Your task to perform on an android device: Go to privacy settings Image 0: 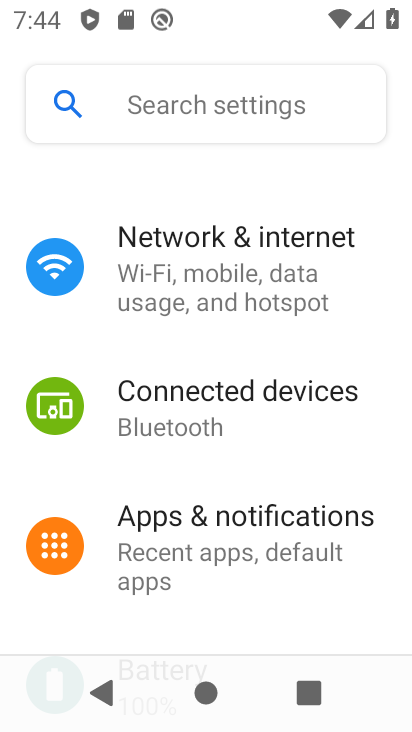
Step 0: press home button
Your task to perform on an android device: Go to privacy settings Image 1: 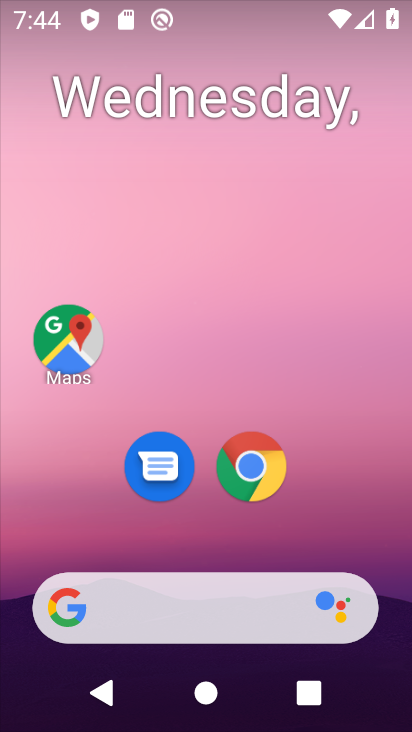
Step 1: drag from (214, 542) to (209, 2)
Your task to perform on an android device: Go to privacy settings Image 2: 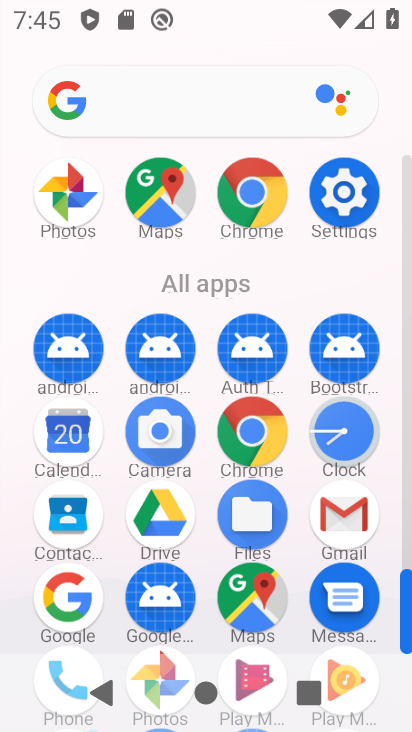
Step 2: click (347, 199)
Your task to perform on an android device: Go to privacy settings Image 3: 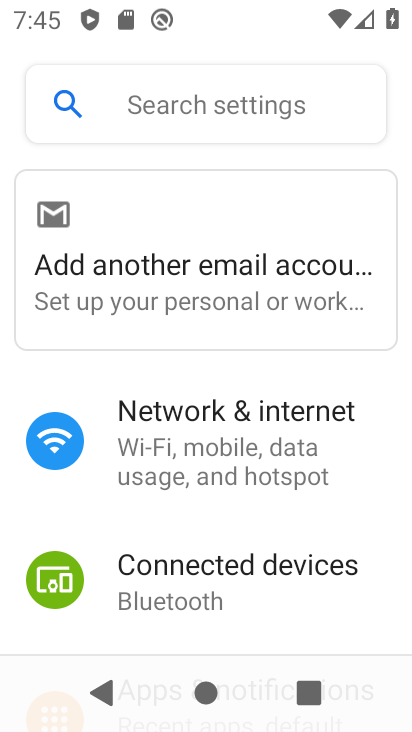
Step 3: drag from (345, 491) to (320, 41)
Your task to perform on an android device: Go to privacy settings Image 4: 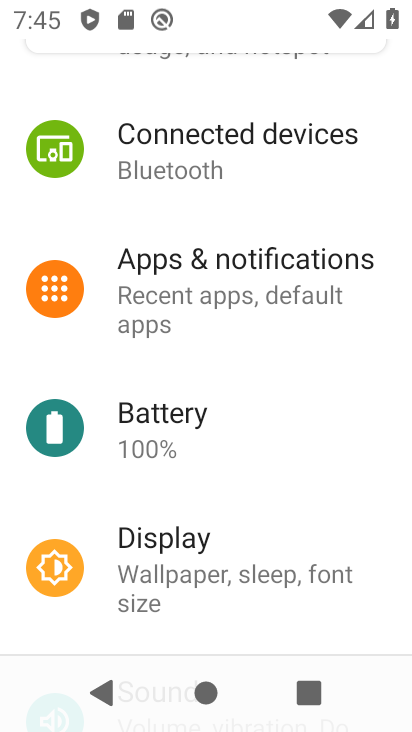
Step 4: drag from (295, 587) to (297, 83)
Your task to perform on an android device: Go to privacy settings Image 5: 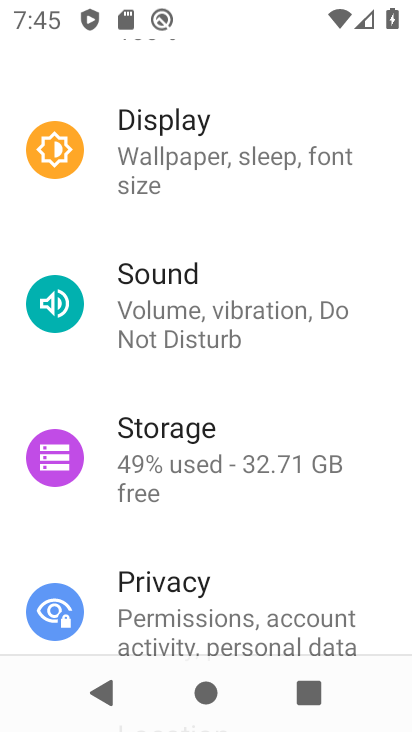
Step 5: click (207, 599)
Your task to perform on an android device: Go to privacy settings Image 6: 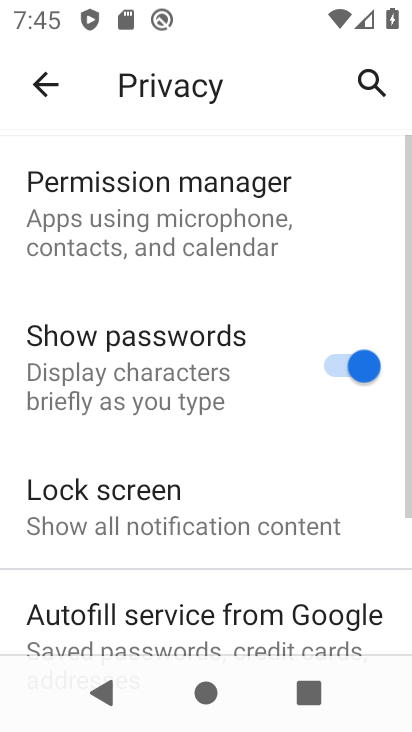
Step 6: task complete